Your task to perform on an android device: Open the map Image 0: 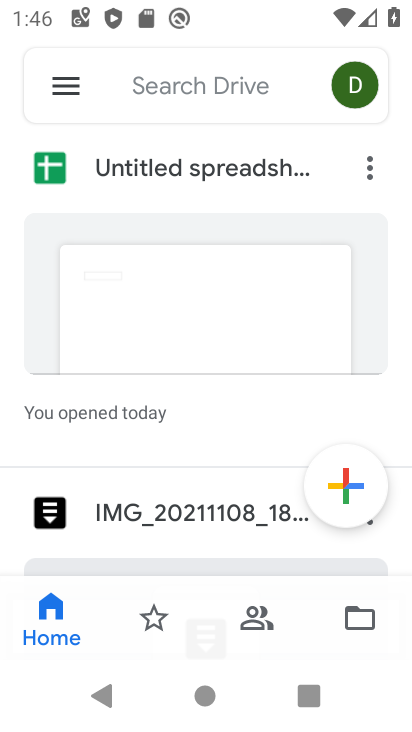
Step 0: press home button
Your task to perform on an android device: Open the map Image 1: 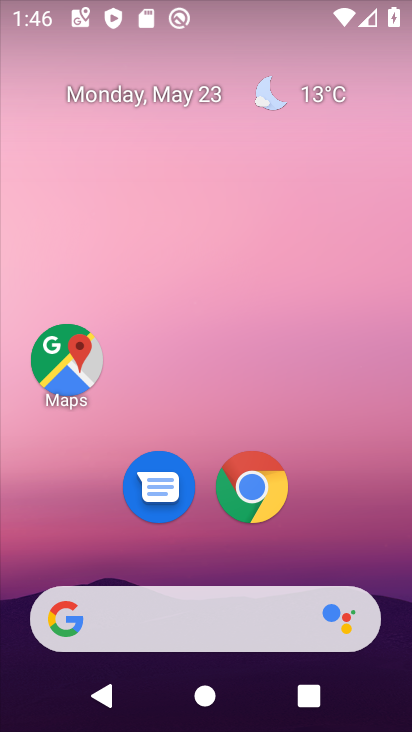
Step 1: click (70, 360)
Your task to perform on an android device: Open the map Image 2: 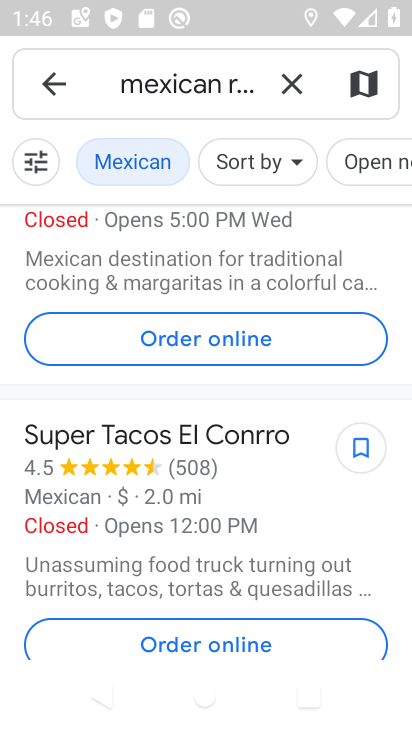
Step 2: click (290, 84)
Your task to perform on an android device: Open the map Image 3: 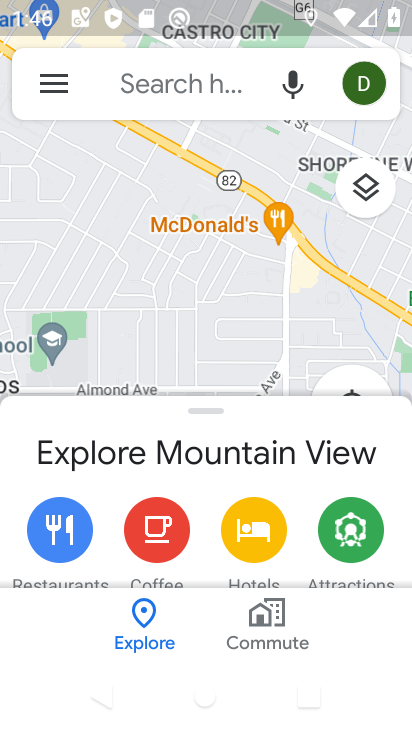
Step 3: task complete